Your task to perform on an android device: Is it going to rain tomorrow? Image 0: 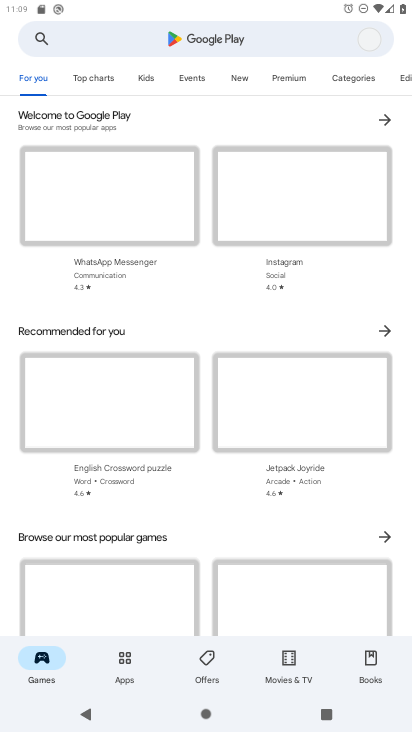
Step 0: press home button
Your task to perform on an android device: Is it going to rain tomorrow? Image 1: 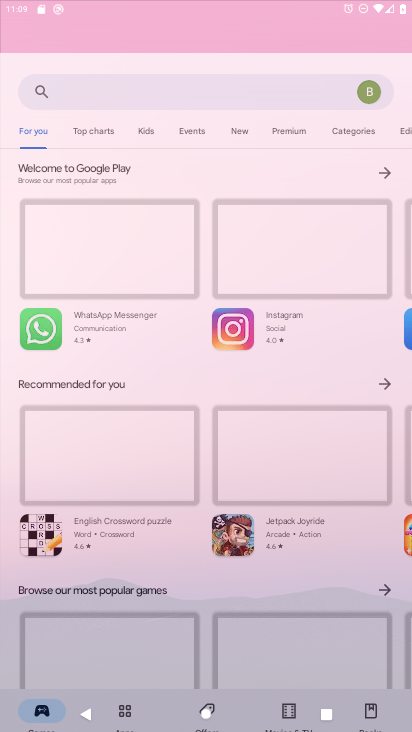
Step 1: drag from (378, 698) to (231, 55)
Your task to perform on an android device: Is it going to rain tomorrow? Image 2: 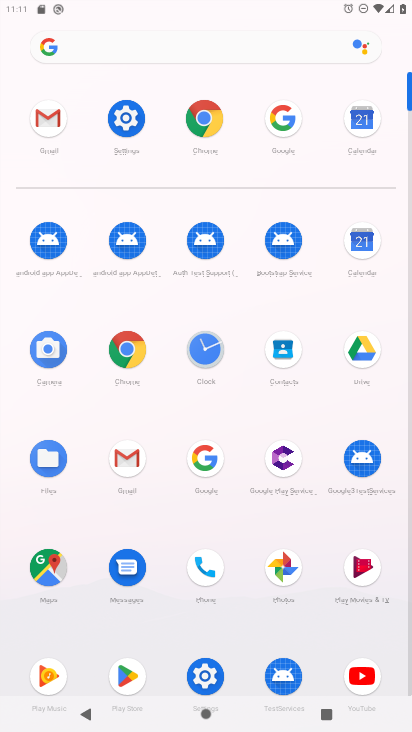
Step 2: click (193, 450)
Your task to perform on an android device: Is it going to rain tomorrow? Image 3: 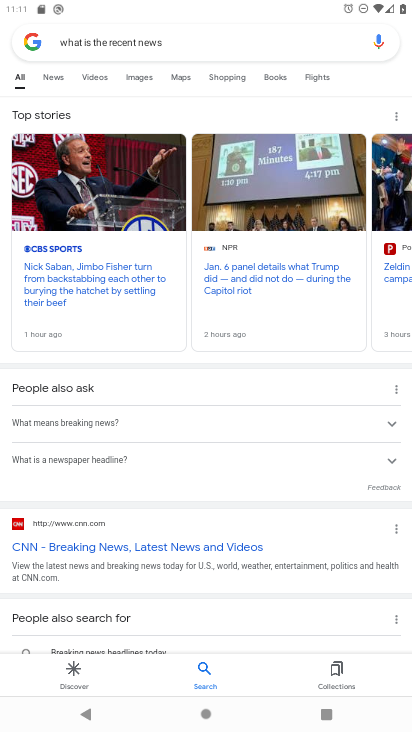
Step 3: press back button
Your task to perform on an android device: Is it going to rain tomorrow? Image 4: 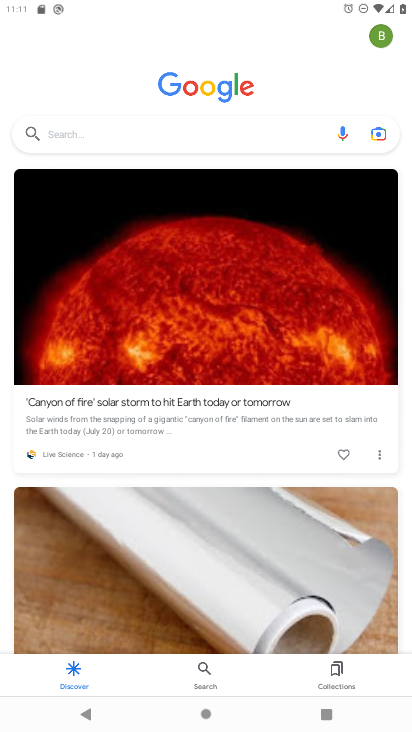
Step 4: click (111, 129)
Your task to perform on an android device: Is it going to rain tomorrow? Image 5: 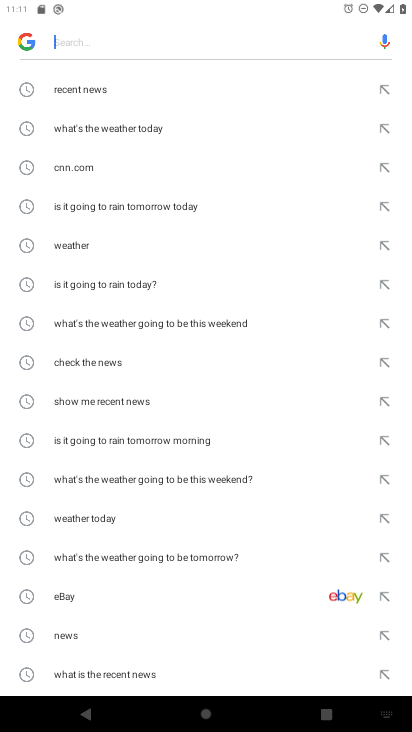
Step 5: type "Is it going to rain tomorrow?"
Your task to perform on an android device: Is it going to rain tomorrow? Image 6: 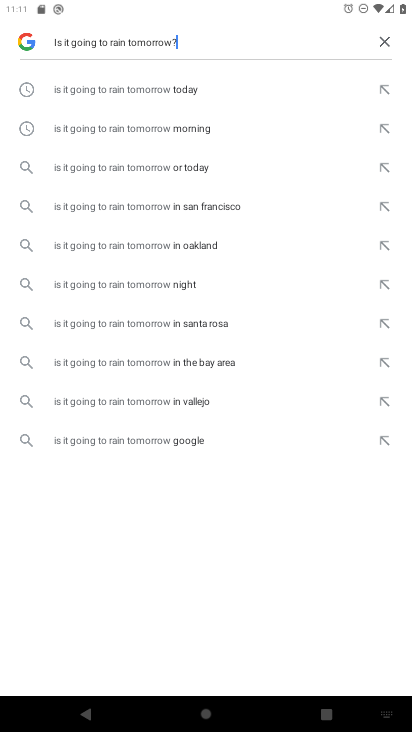
Step 6: click (112, 93)
Your task to perform on an android device: Is it going to rain tomorrow? Image 7: 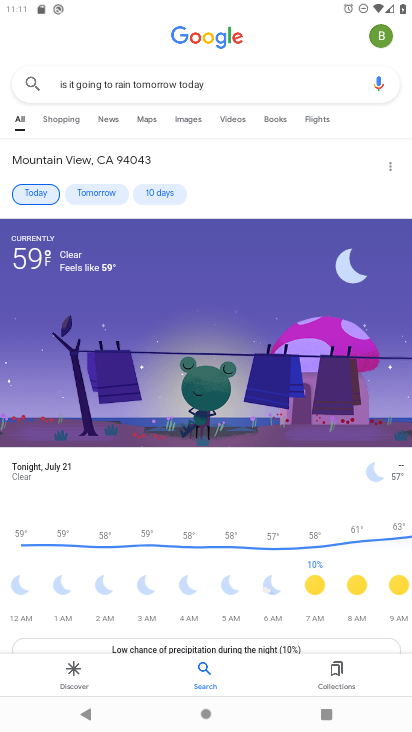
Step 7: task complete